Your task to perform on an android device: Go to eBay Image 0: 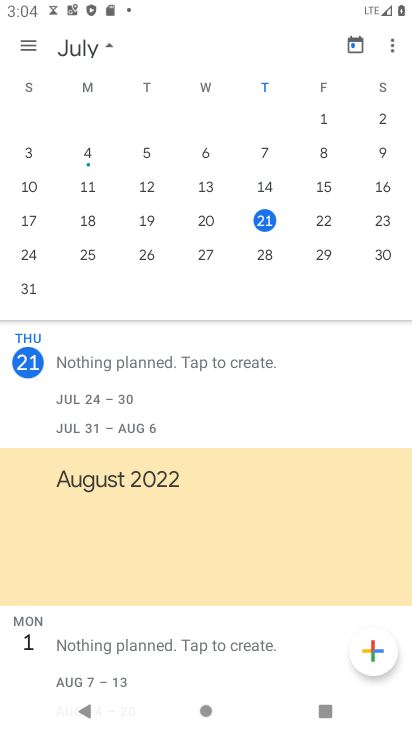
Step 0: click (259, 217)
Your task to perform on an android device: Go to eBay Image 1: 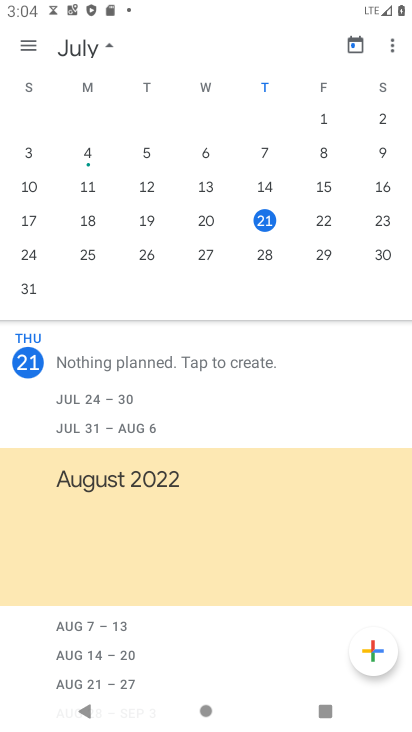
Step 1: press home button
Your task to perform on an android device: Go to eBay Image 2: 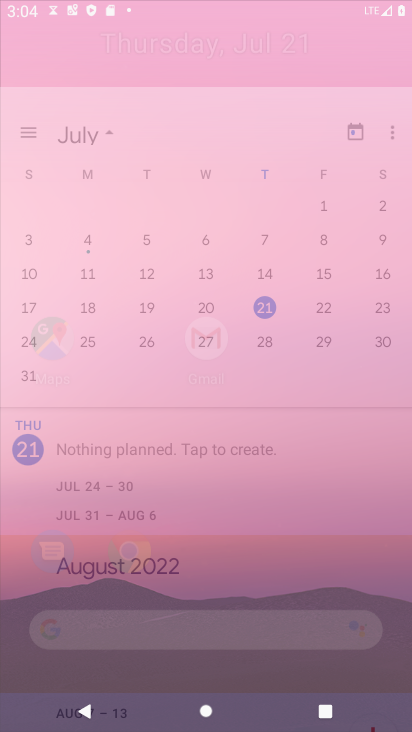
Step 2: drag from (197, 550) to (266, 137)
Your task to perform on an android device: Go to eBay Image 3: 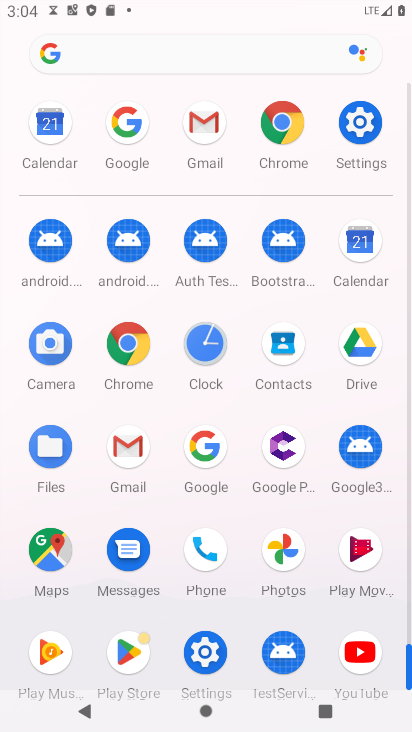
Step 3: click (175, 58)
Your task to perform on an android device: Go to eBay Image 4: 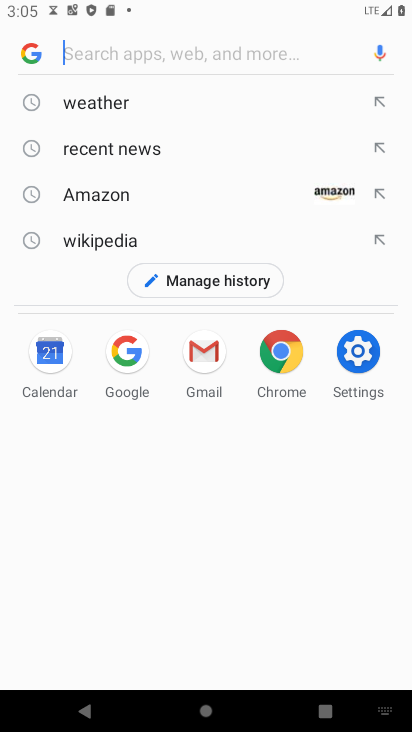
Step 4: type "ebay"
Your task to perform on an android device: Go to eBay Image 5: 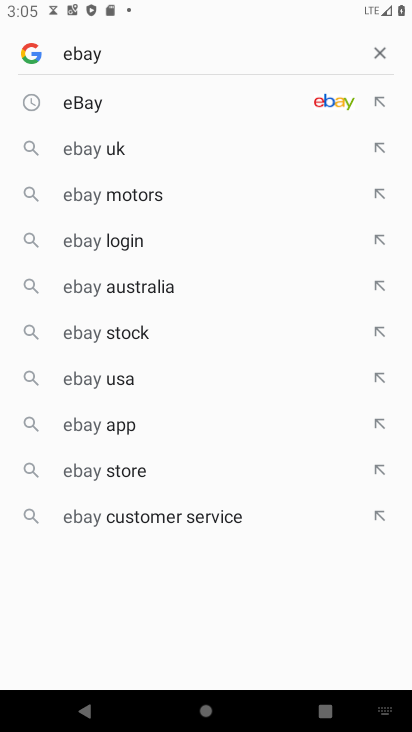
Step 5: click (177, 91)
Your task to perform on an android device: Go to eBay Image 6: 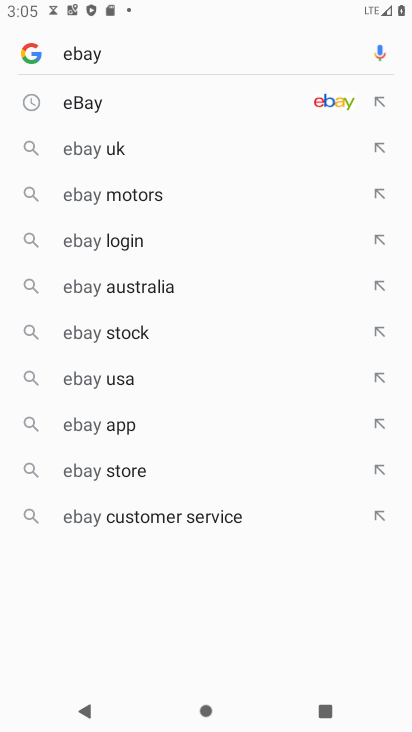
Step 6: click (205, 101)
Your task to perform on an android device: Go to eBay Image 7: 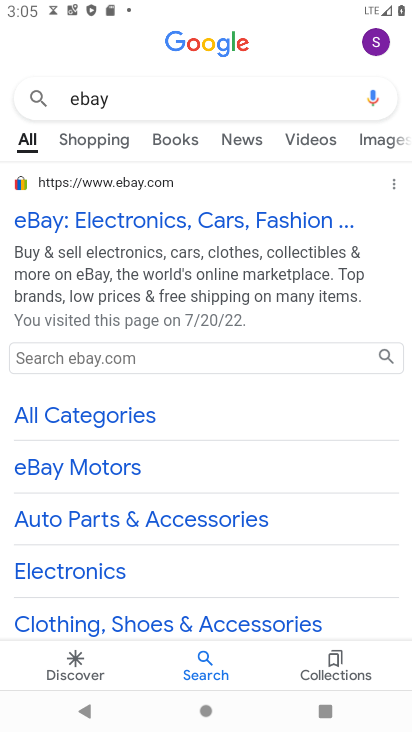
Step 7: click (172, 215)
Your task to perform on an android device: Go to eBay Image 8: 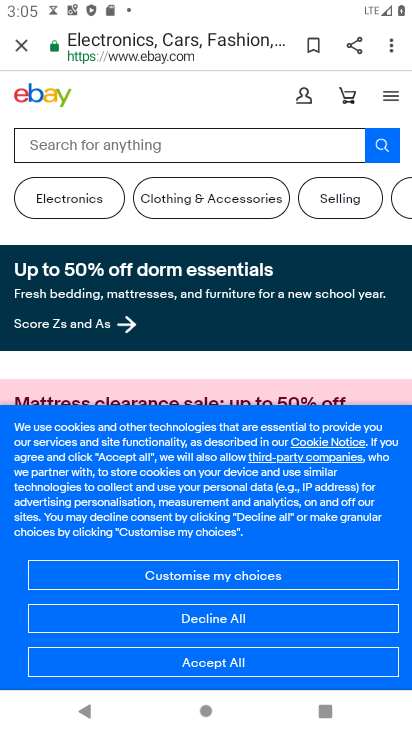
Step 8: task complete